Your task to perform on an android device: Open sound settings Image 0: 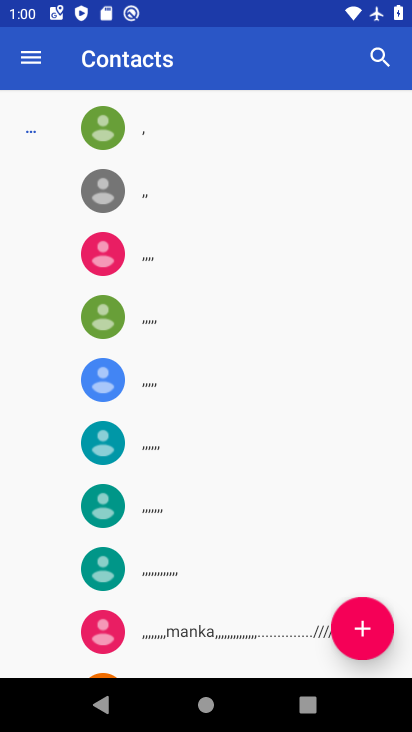
Step 0: press home button
Your task to perform on an android device: Open sound settings Image 1: 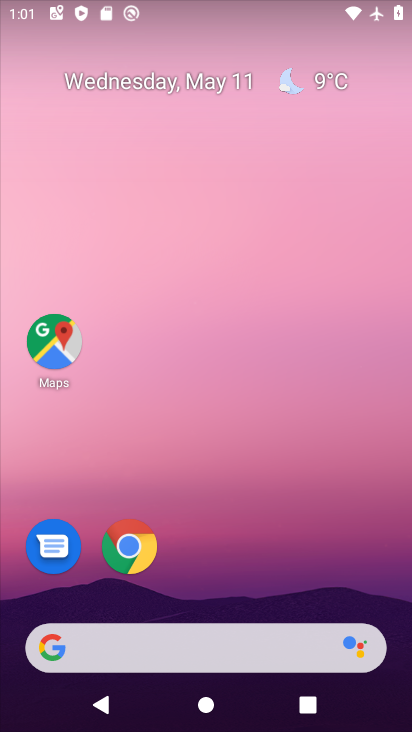
Step 1: drag from (300, 559) to (325, 60)
Your task to perform on an android device: Open sound settings Image 2: 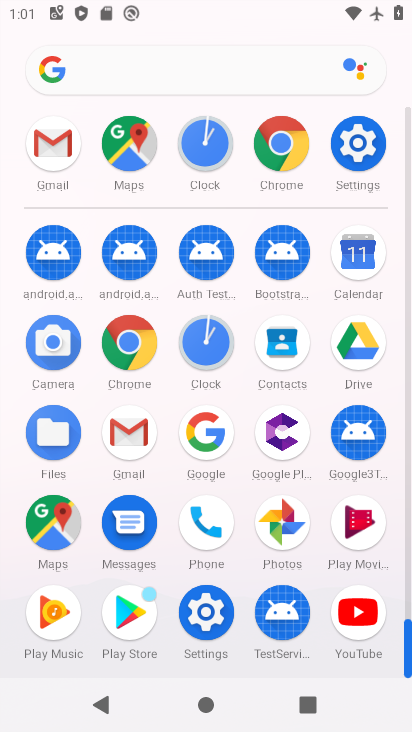
Step 2: click (368, 139)
Your task to perform on an android device: Open sound settings Image 3: 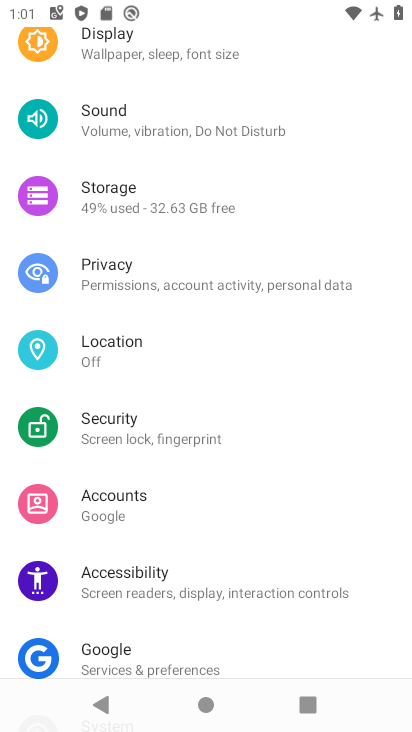
Step 3: click (151, 125)
Your task to perform on an android device: Open sound settings Image 4: 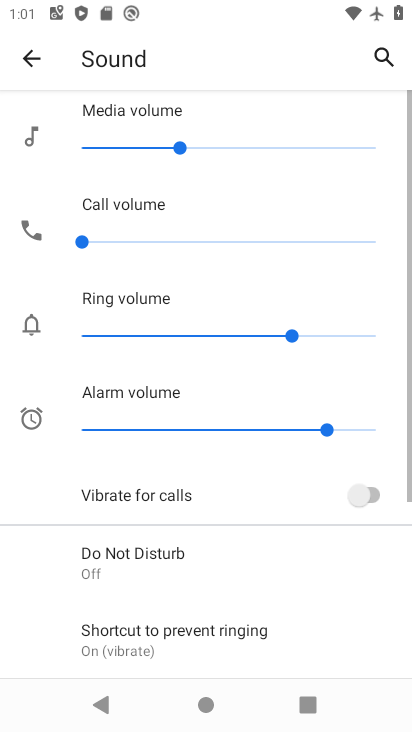
Step 4: task complete